Your task to perform on an android device: Open the web browser Image 0: 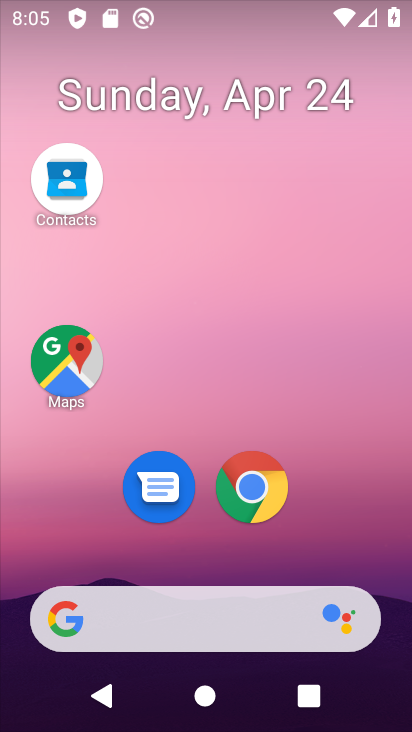
Step 0: drag from (197, 559) to (259, 23)
Your task to perform on an android device: Open the web browser Image 1: 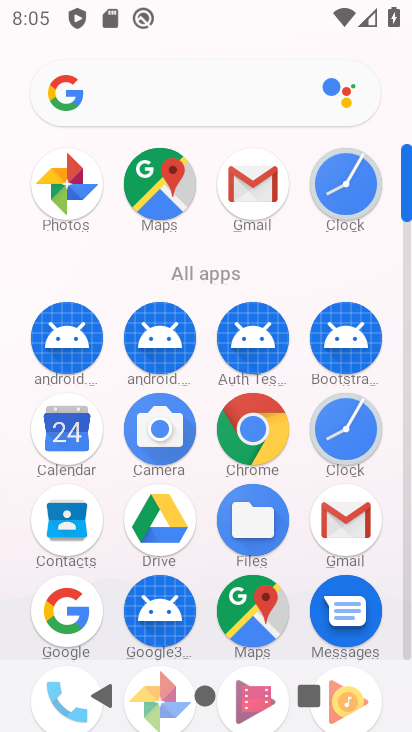
Step 1: click (75, 620)
Your task to perform on an android device: Open the web browser Image 2: 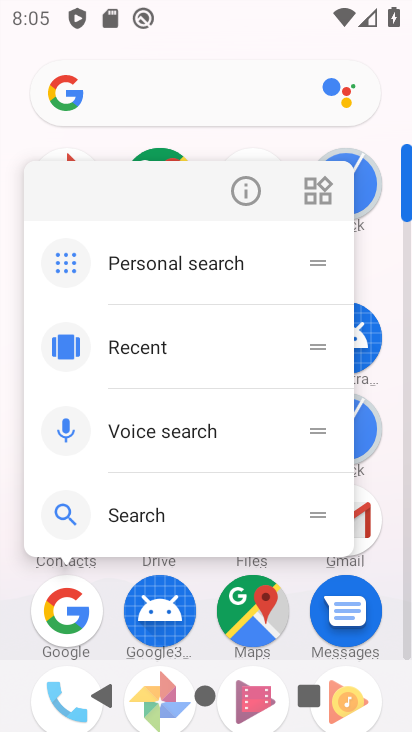
Step 2: click (64, 622)
Your task to perform on an android device: Open the web browser Image 3: 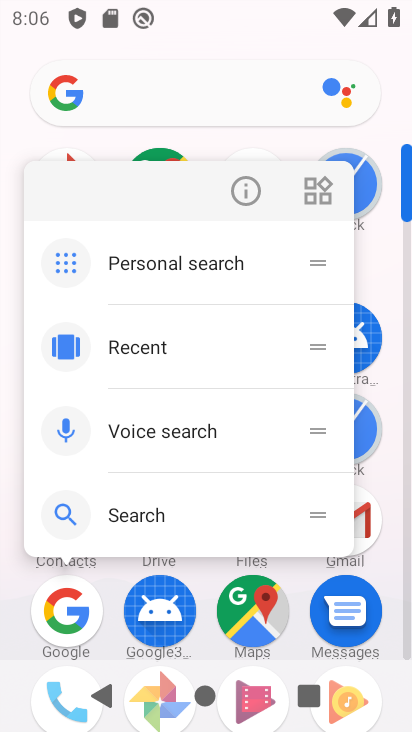
Step 3: click (48, 597)
Your task to perform on an android device: Open the web browser Image 4: 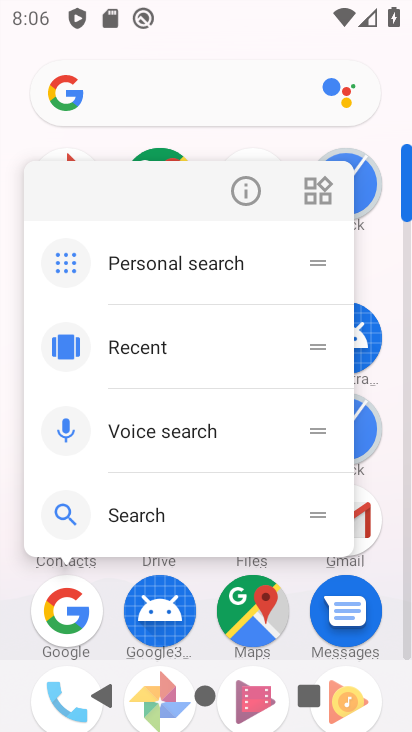
Step 4: click (72, 510)
Your task to perform on an android device: Open the web browser Image 5: 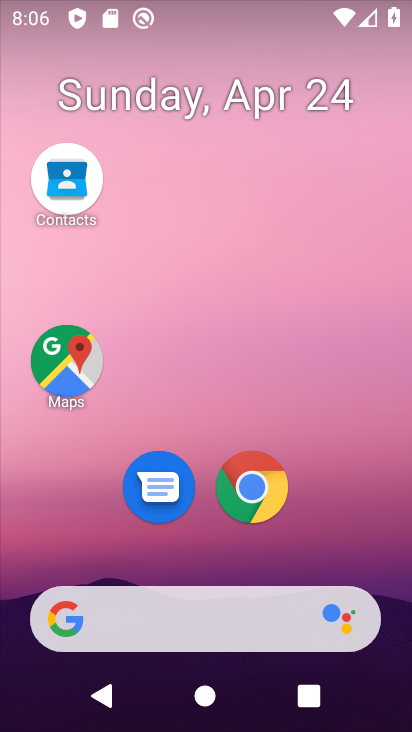
Step 5: click (119, 599)
Your task to perform on an android device: Open the web browser Image 6: 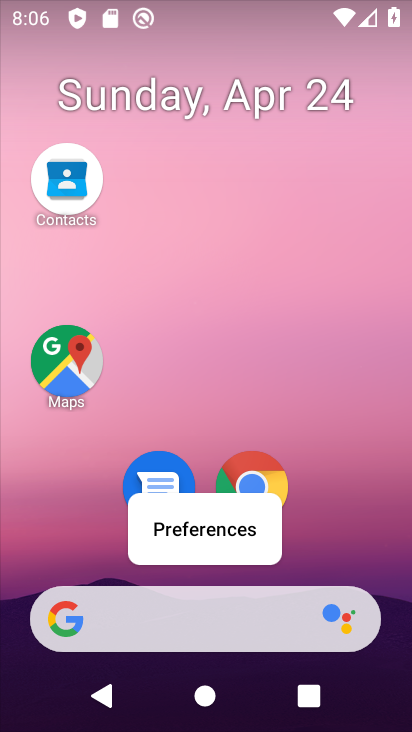
Step 6: click (118, 621)
Your task to perform on an android device: Open the web browser Image 7: 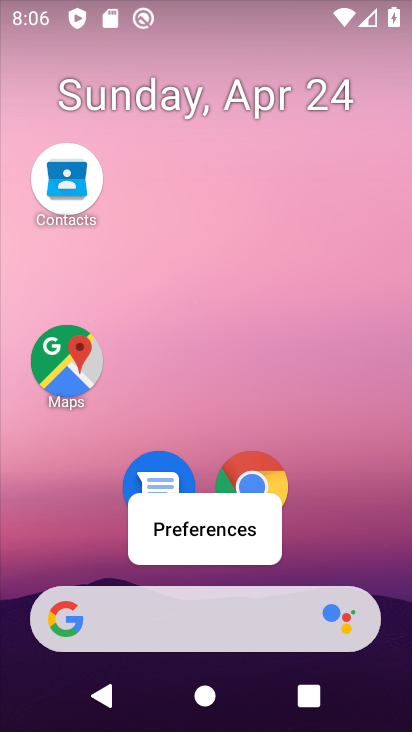
Step 7: click (128, 628)
Your task to perform on an android device: Open the web browser Image 8: 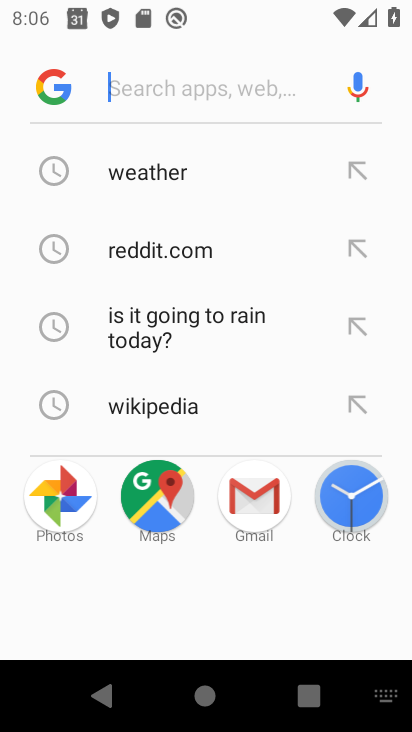
Step 8: task complete